Your task to perform on an android device: toggle airplane mode Image 0: 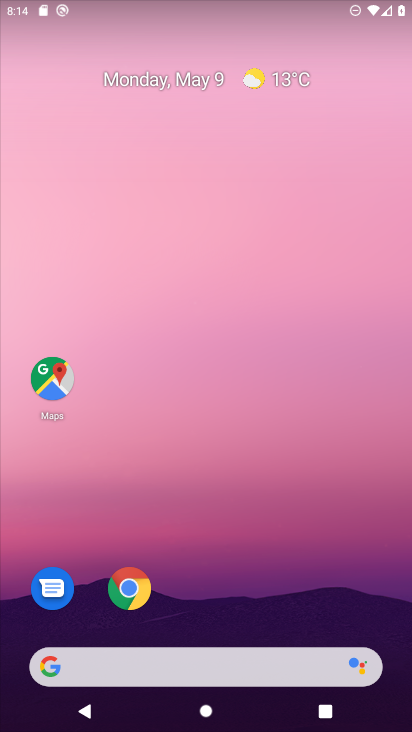
Step 0: drag from (227, 604) to (405, 345)
Your task to perform on an android device: toggle airplane mode Image 1: 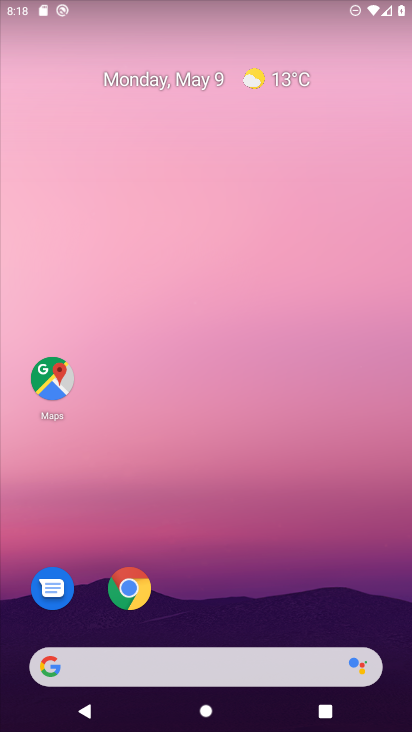
Step 1: drag from (350, 508) to (338, 362)
Your task to perform on an android device: toggle airplane mode Image 2: 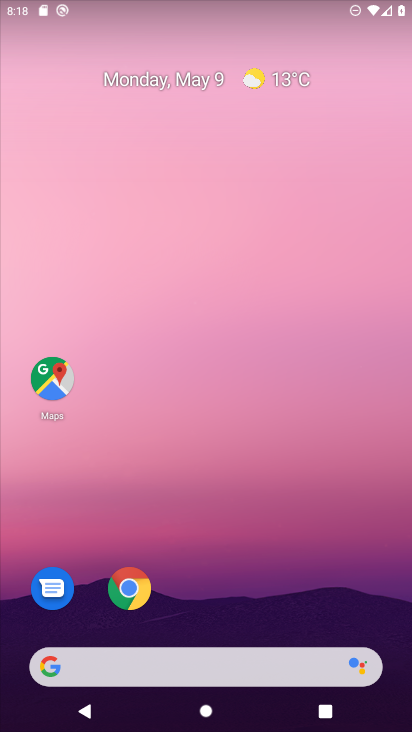
Step 2: drag from (273, 543) to (243, 11)
Your task to perform on an android device: toggle airplane mode Image 3: 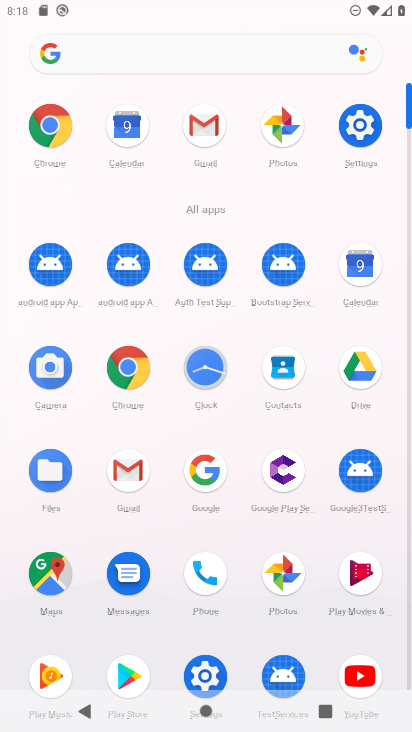
Step 3: click (344, 137)
Your task to perform on an android device: toggle airplane mode Image 4: 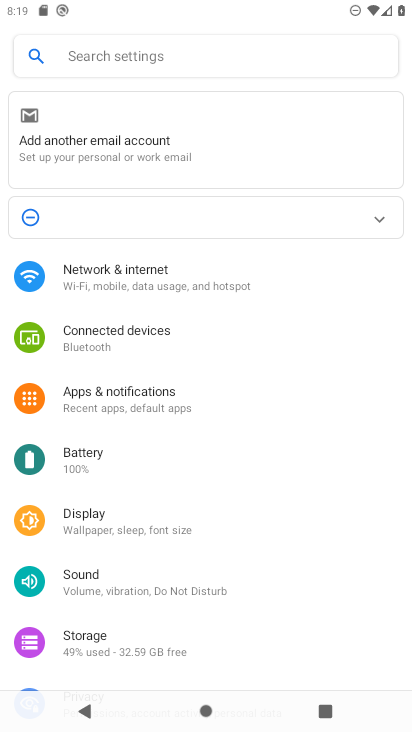
Step 4: click (175, 270)
Your task to perform on an android device: toggle airplane mode Image 5: 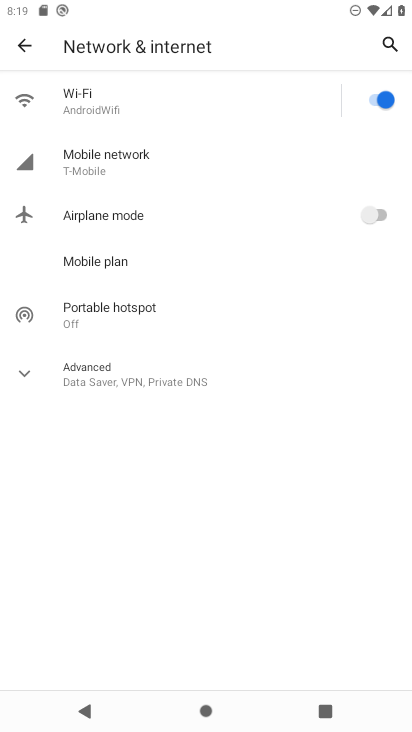
Step 5: click (372, 215)
Your task to perform on an android device: toggle airplane mode Image 6: 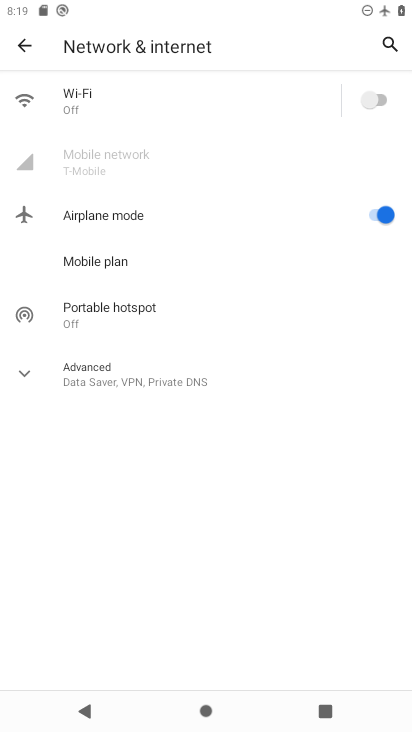
Step 6: task complete